Your task to perform on an android device: Open settings on Google Maps Image 0: 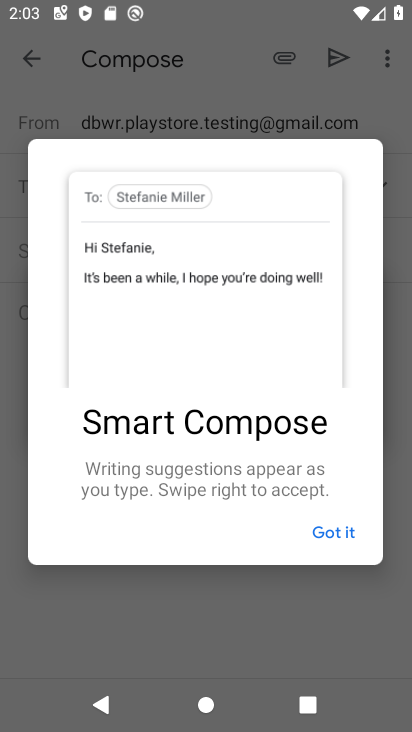
Step 0: press home button
Your task to perform on an android device: Open settings on Google Maps Image 1: 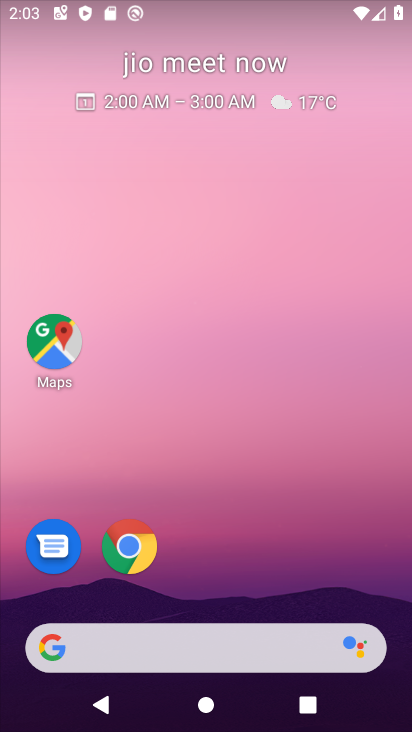
Step 1: drag from (289, 546) to (266, 126)
Your task to perform on an android device: Open settings on Google Maps Image 2: 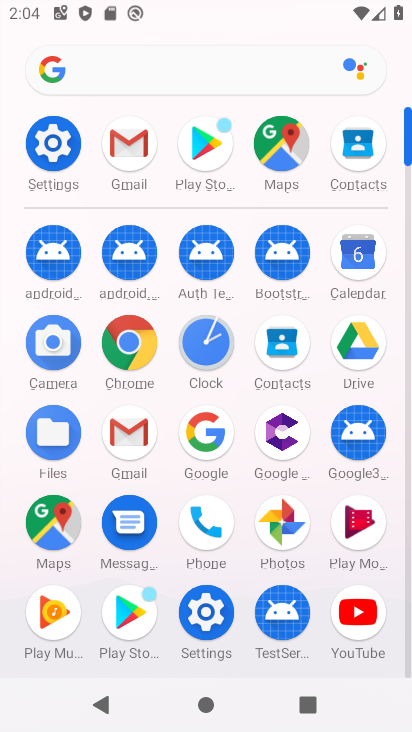
Step 2: click (44, 527)
Your task to perform on an android device: Open settings on Google Maps Image 3: 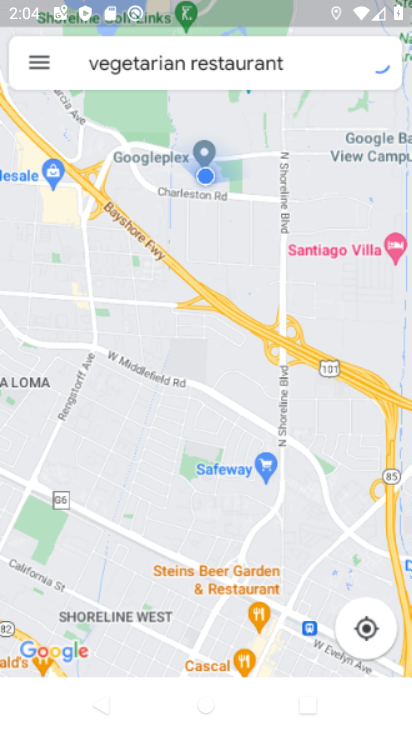
Step 3: task complete